Your task to perform on an android device: change your default location settings in chrome Image 0: 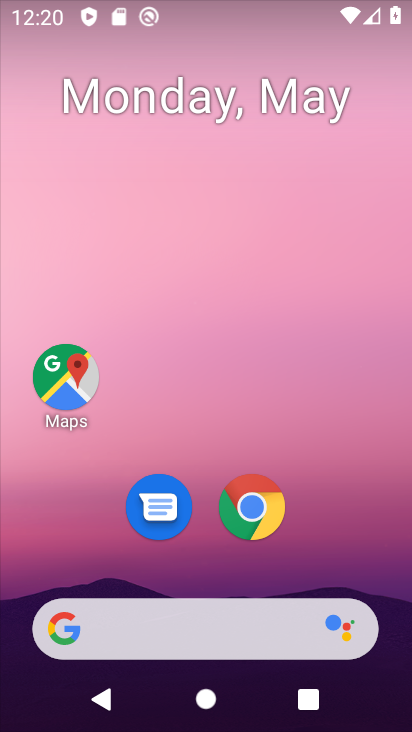
Step 0: click (254, 508)
Your task to perform on an android device: change your default location settings in chrome Image 1: 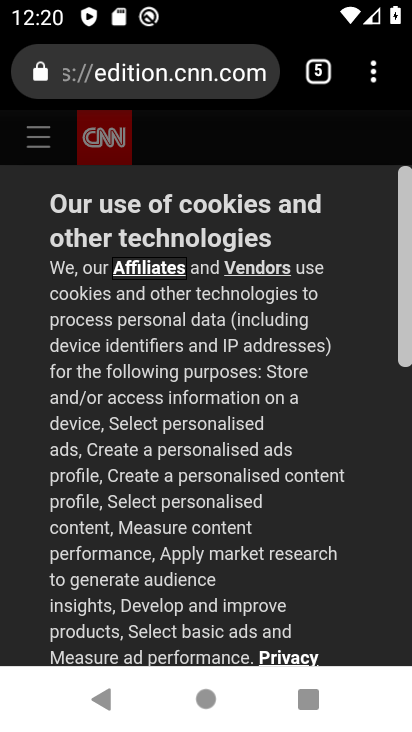
Step 1: click (374, 79)
Your task to perform on an android device: change your default location settings in chrome Image 2: 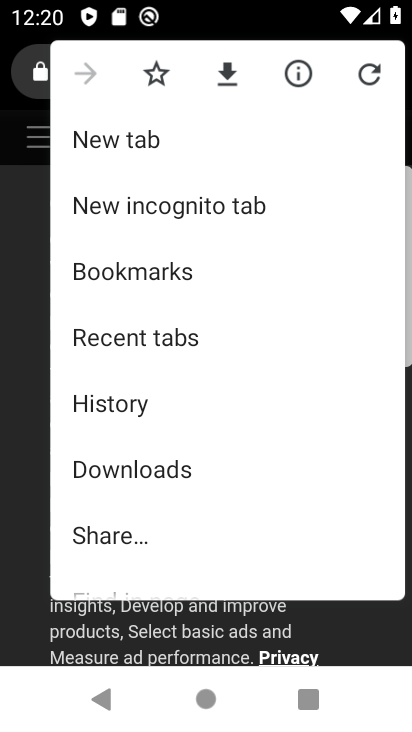
Step 2: drag from (145, 490) to (150, 101)
Your task to perform on an android device: change your default location settings in chrome Image 3: 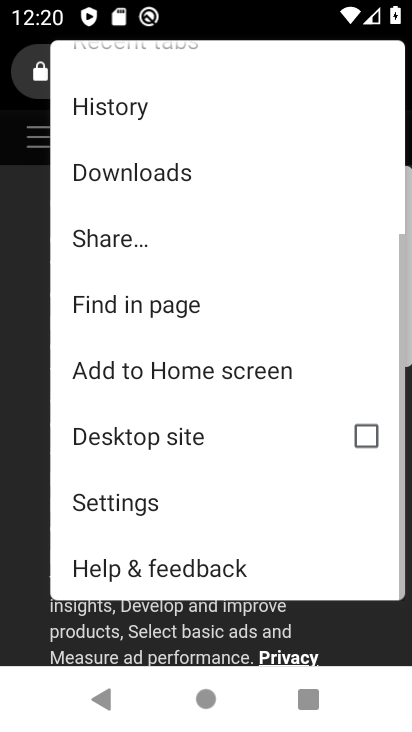
Step 3: click (125, 500)
Your task to perform on an android device: change your default location settings in chrome Image 4: 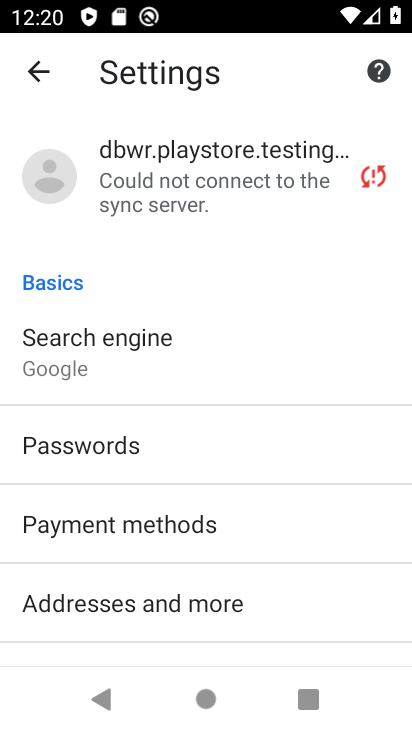
Step 4: drag from (187, 640) to (189, 345)
Your task to perform on an android device: change your default location settings in chrome Image 5: 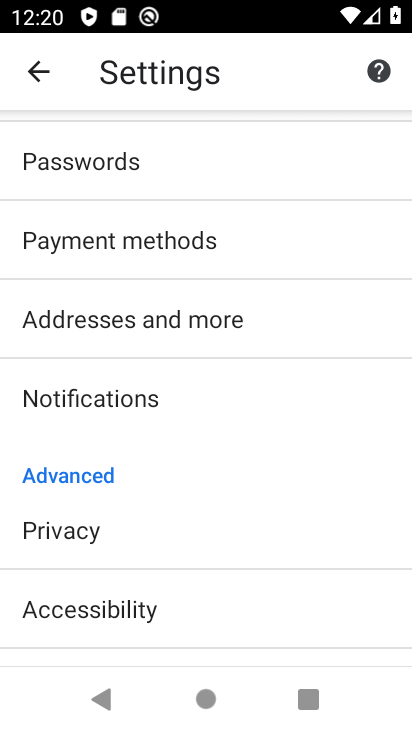
Step 5: drag from (145, 642) to (147, 286)
Your task to perform on an android device: change your default location settings in chrome Image 6: 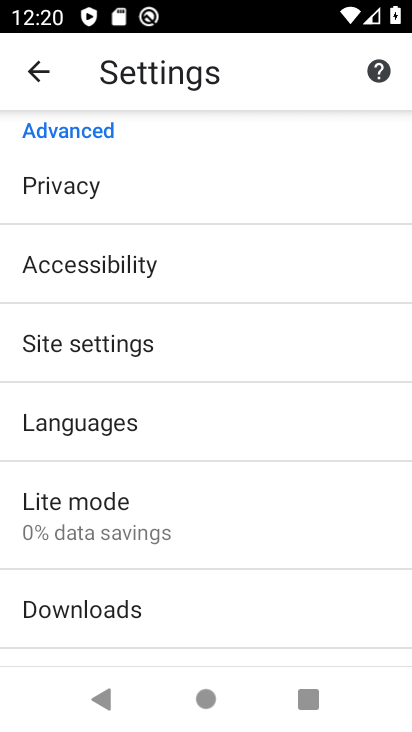
Step 6: click (112, 343)
Your task to perform on an android device: change your default location settings in chrome Image 7: 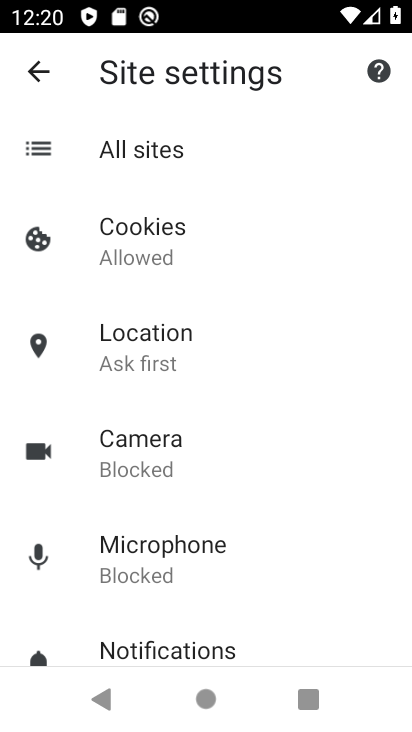
Step 7: click (138, 357)
Your task to perform on an android device: change your default location settings in chrome Image 8: 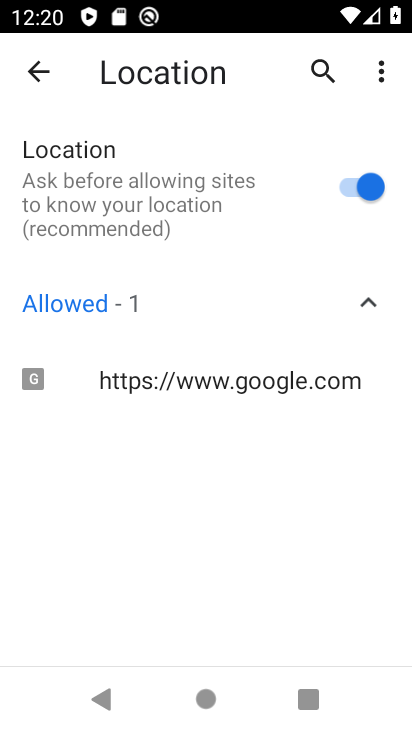
Step 8: click (354, 190)
Your task to perform on an android device: change your default location settings in chrome Image 9: 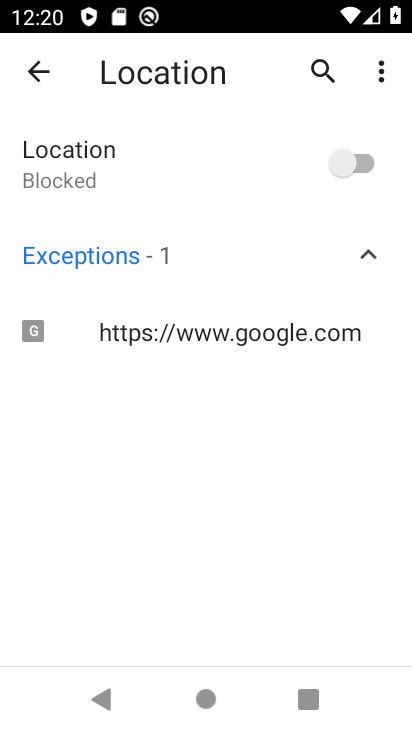
Step 9: task complete